Your task to perform on an android device: make emails show in primary in the gmail app Image 0: 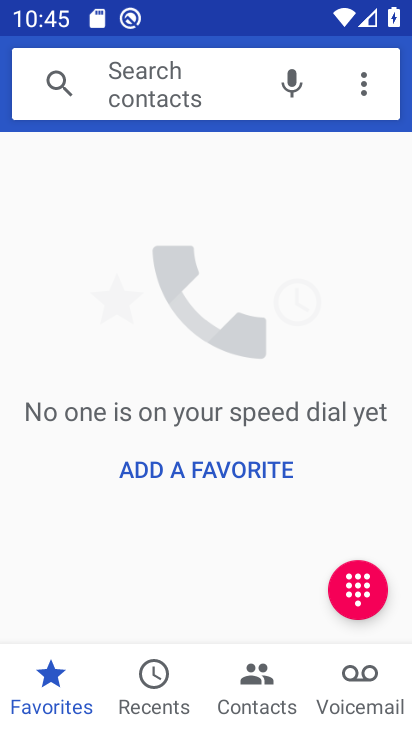
Step 0: press home button
Your task to perform on an android device: make emails show in primary in the gmail app Image 1: 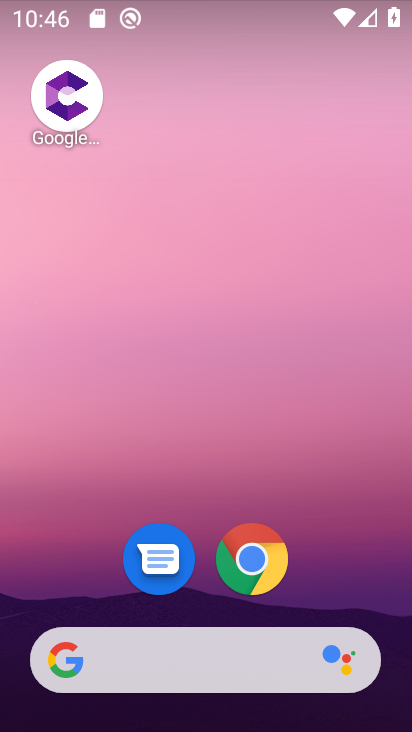
Step 1: drag from (326, 700) to (275, 186)
Your task to perform on an android device: make emails show in primary in the gmail app Image 2: 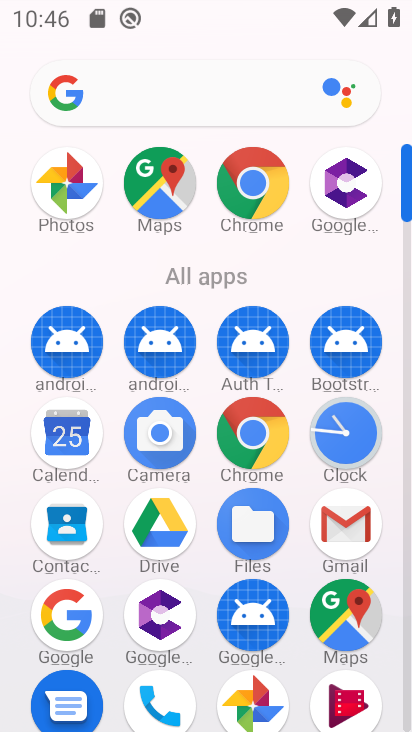
Step 2: click (333, 512)
Your task to perform on an android device: make emails show in primary in the gmail app Image 3: 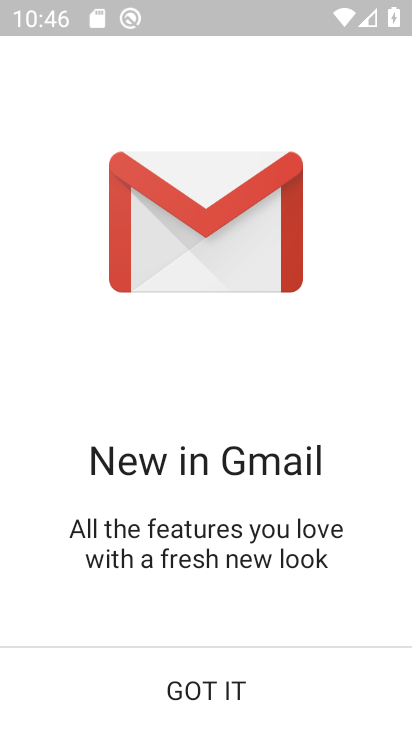
Step 3: click (226, 681)
Your task to perform on an android device: make emails show in primary in the gmail app Image 4: 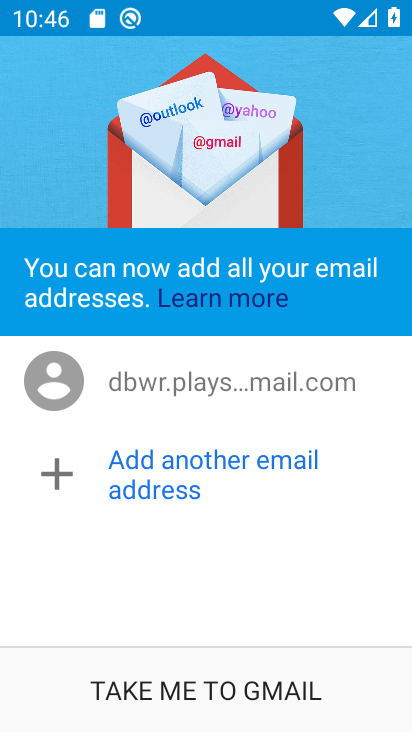
Step 4: click (209, 694)
Your task to perform on an android device: make emails show in primary in the gmail app Image 5: 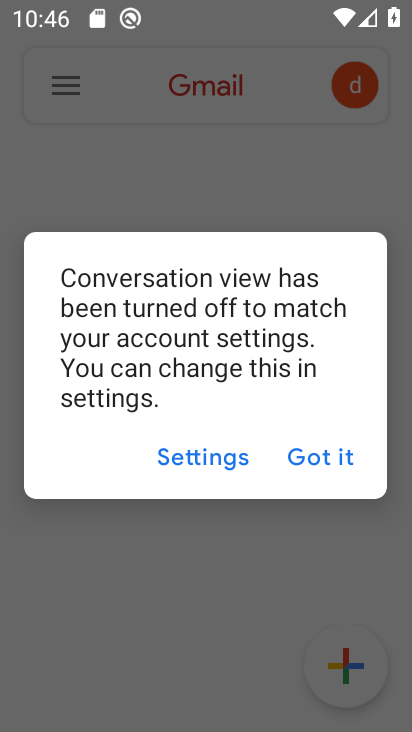
Step 5: click (323, 461)
Your task to perform on an android device: make emails show in primary in the gmail app Image 6: 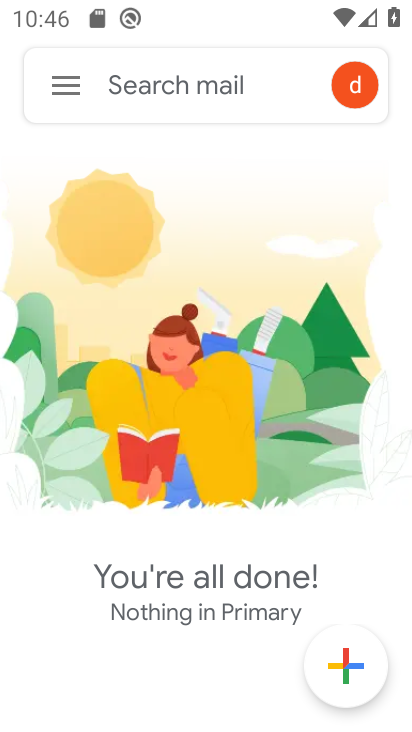
Step 6: click (41, 91)
Your task to perform on an android device: make emails show in primary in the gmail app Image 7: 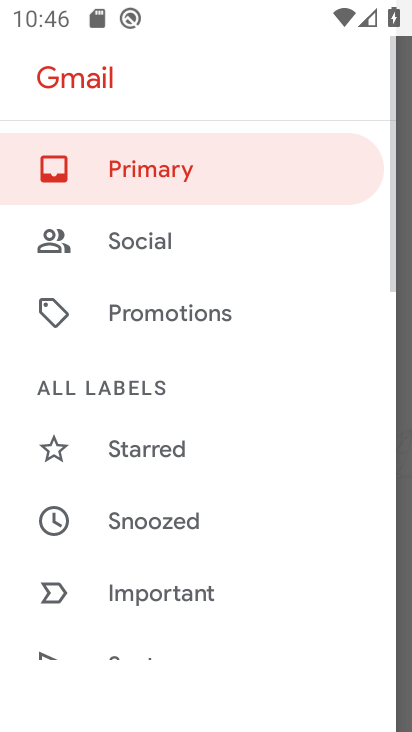
Step 7: drag from (169, 548) to (203, 186)
Your task to perform on an android device: make emails show in primary in the gmail app Image 8: 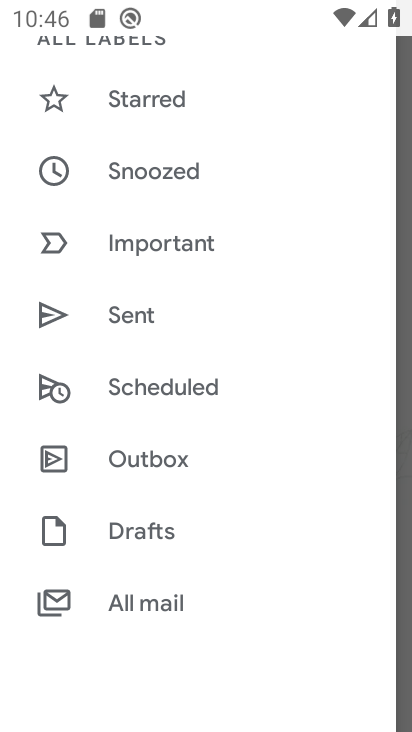
Step 8: drag from (203, 508) to (234, 207)
Your task to perform on an android device: make emails show in primary in the gmail app Image 9: 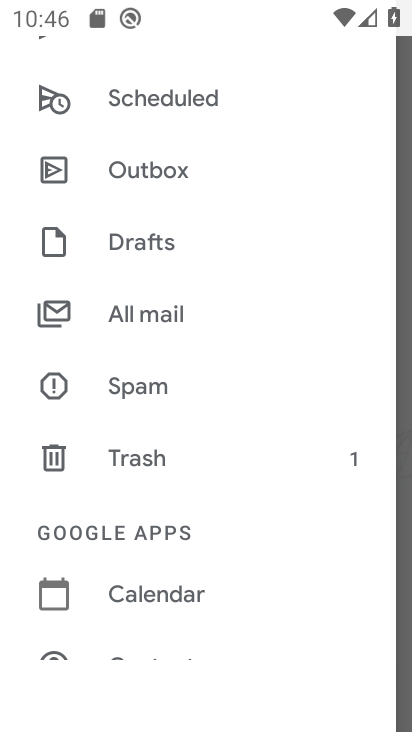
Step 9: drag from (176, 585) to (200, 266)
Your task to perform on an android device: make emails show in primary in the gmail app Image 10: 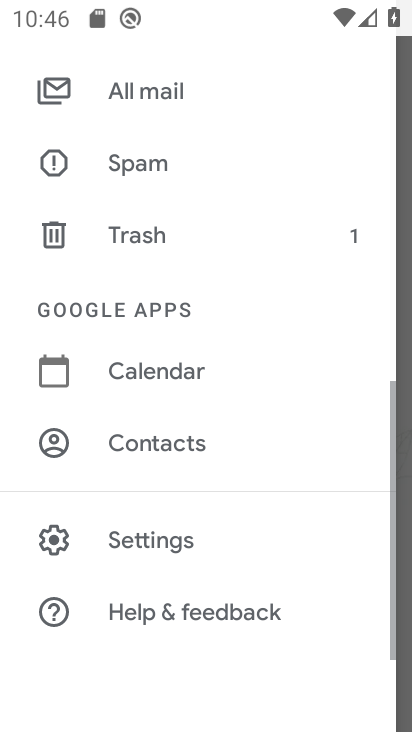
Step 10: click (135, 531)
Your task to perform on an android device: make emails show in primary in the gmail app Image 11: 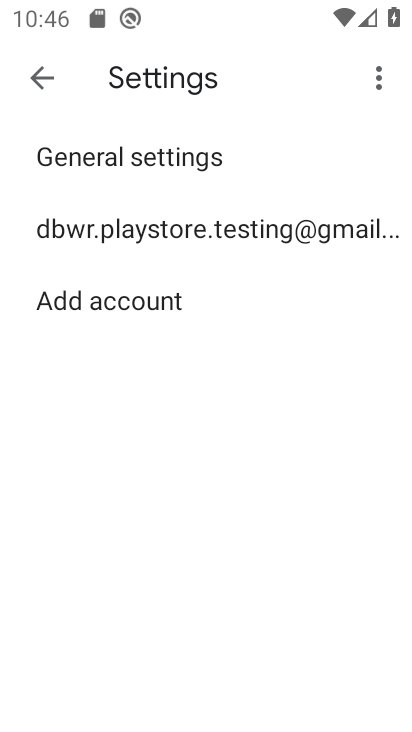
Step 11: click (221, 234)
Your task to perform on an android device: make emails show in primary in the gmail app Image 12: 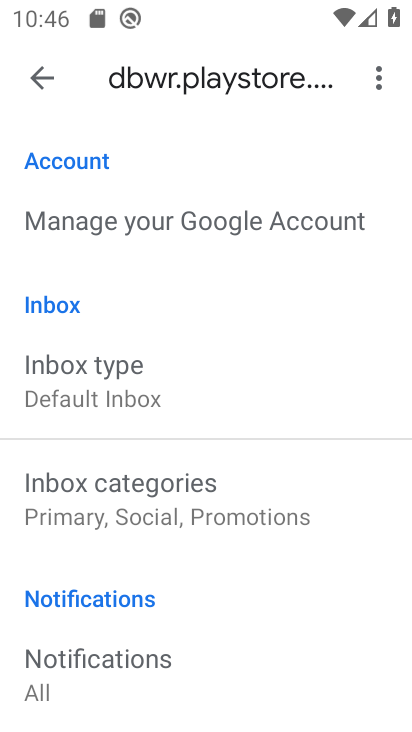
Step 12: drag from (217, 540) to (208, 366)
Your task to perform on an android device: make emails show in primary in the gmail app Image 13: 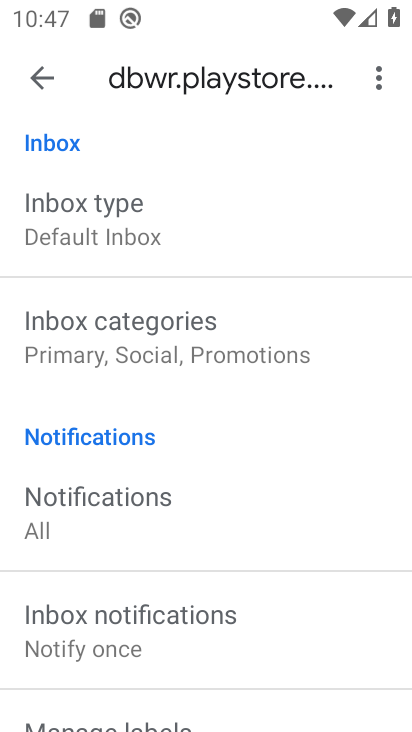
Step 13: click (137, 239)
Your task to perform on an android device: make emails show in primary in the gmail app Image 14: 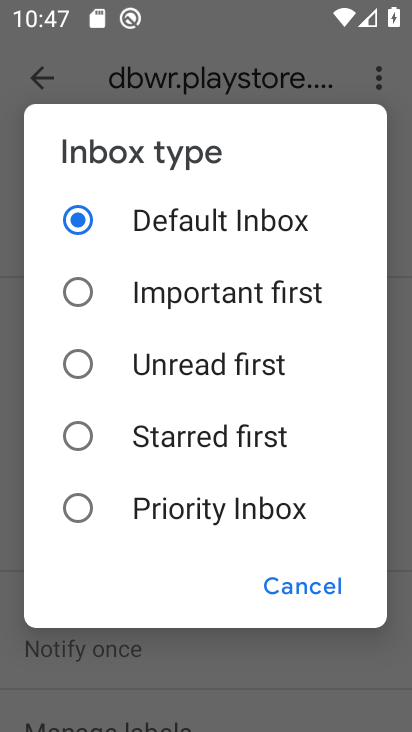
Step 14: click (285, 577)
Your task to perform on an android device: make emails show in primary in the gmail app Image 15: 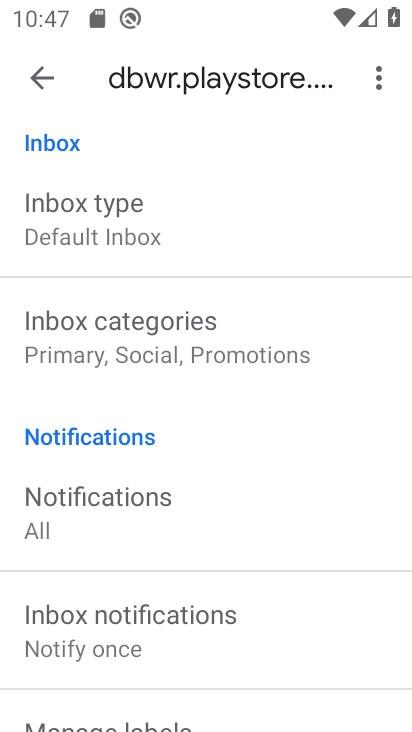
Step 15: click (140, 351)
Your task to perform on an android device: make emails show in primary in the gmail app Image 16: 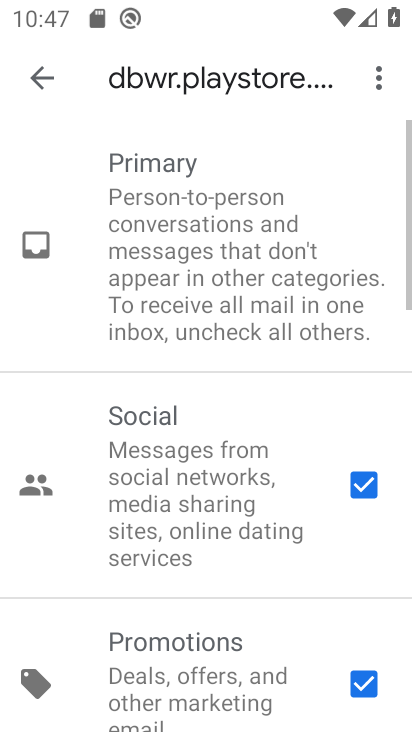
Step 16: click (242, 298)
Your task to perform on an android device: make emails show in primary in the gmail app Image 17: 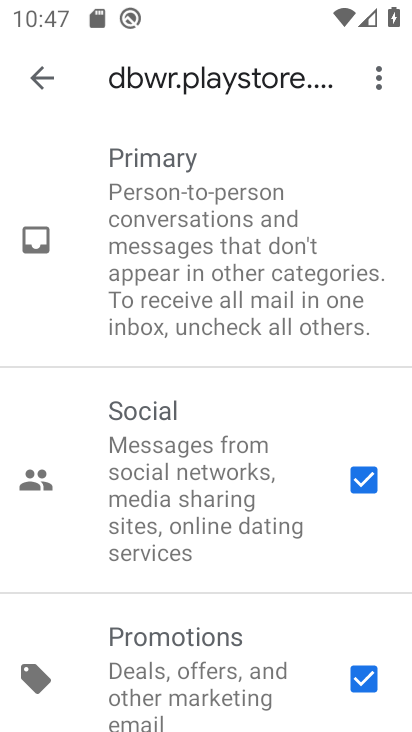
Step 17: task complete